Your task to perform on an android device: Check the news Image 0: 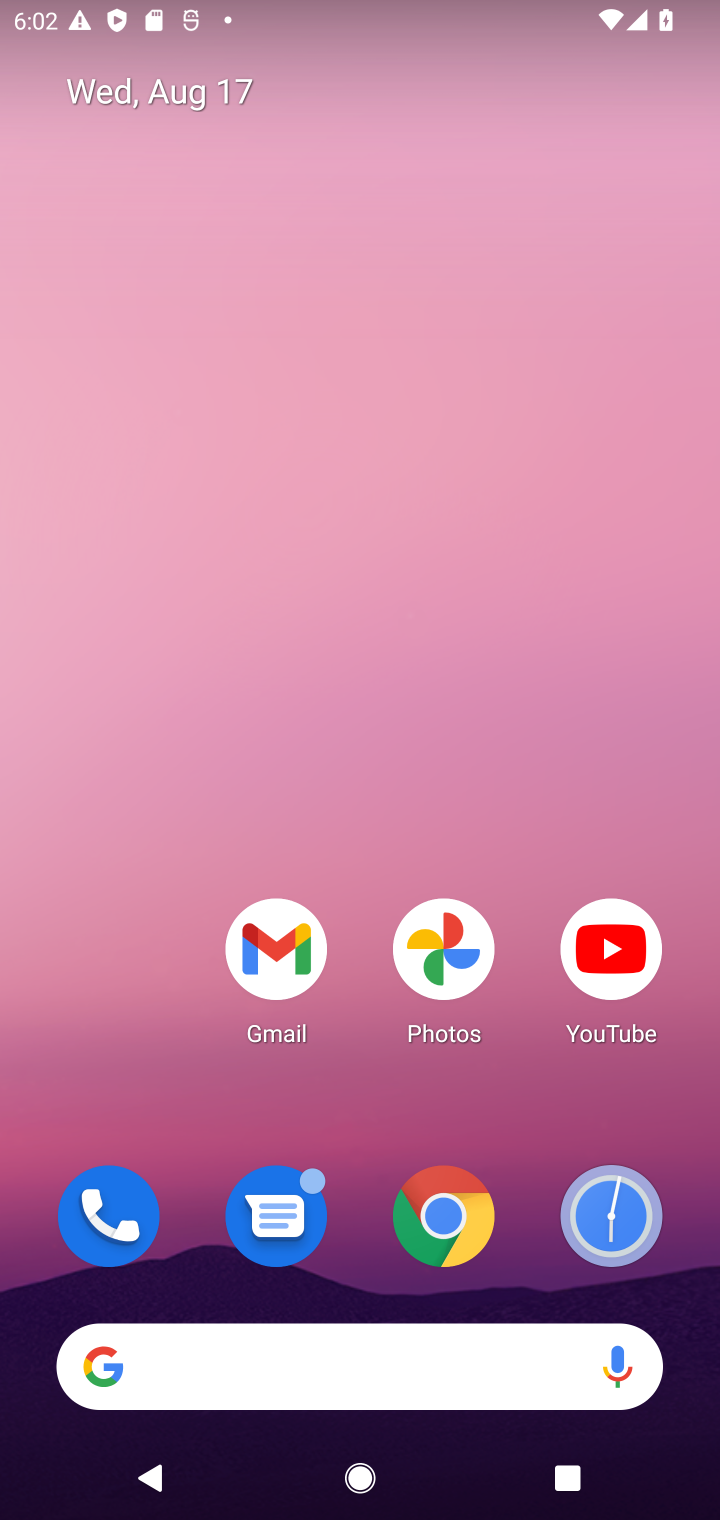
Step 0: drag from (497, 1029) to (358, 114)
Your task to perform on an android device: Check the news Image 1: 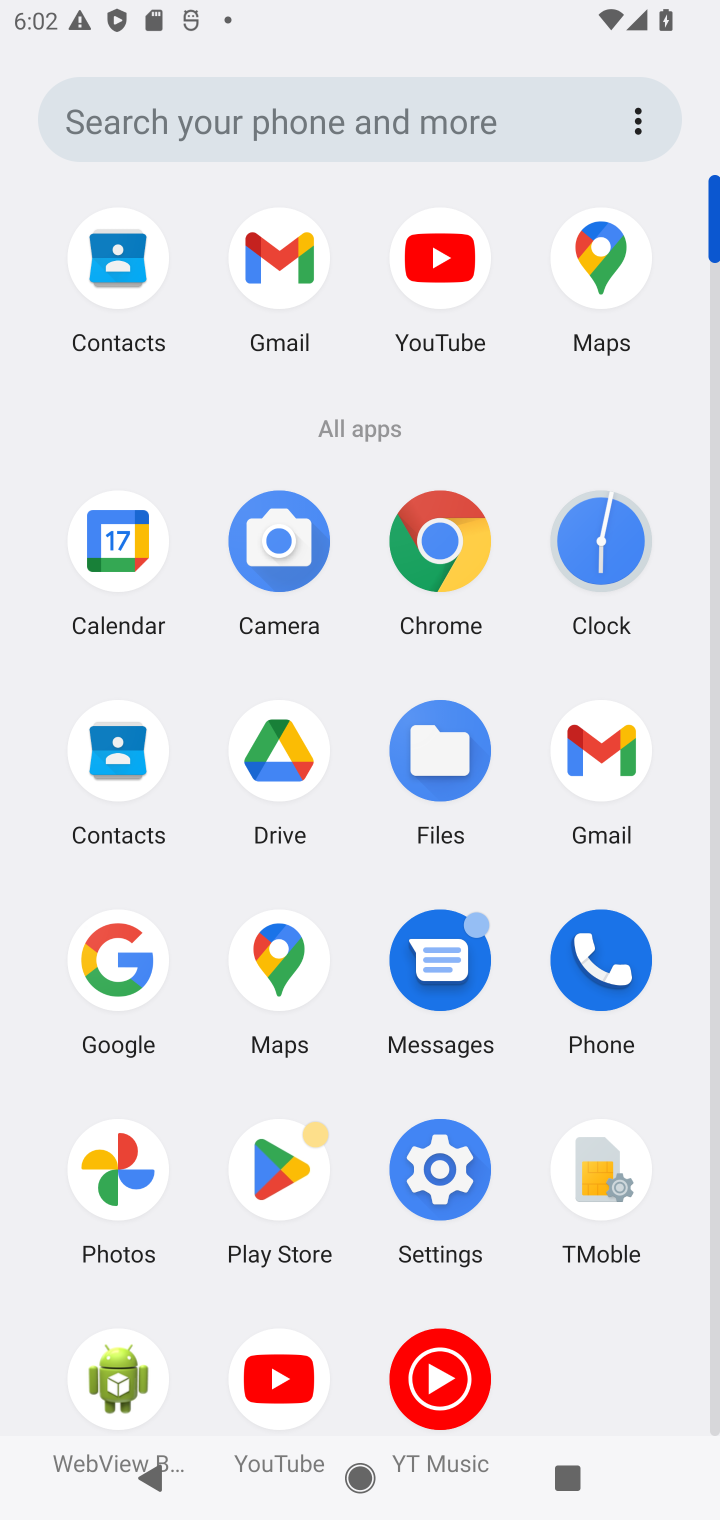
Step 1: click (416, 517)
Your task to perform on an android device: Check the news Image 2: 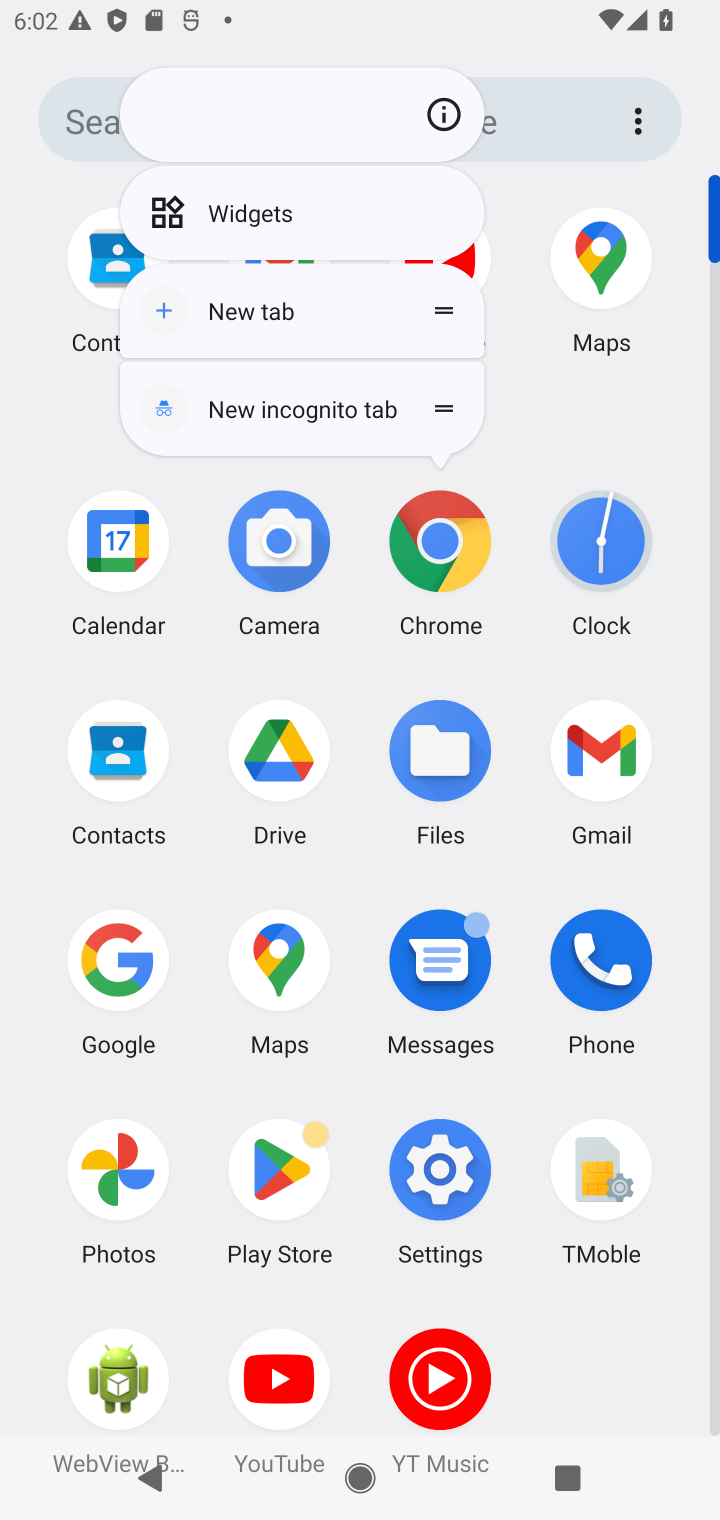
Step 2: click (444, 545)
Your task to perform on an android device: Check the news Image 3: 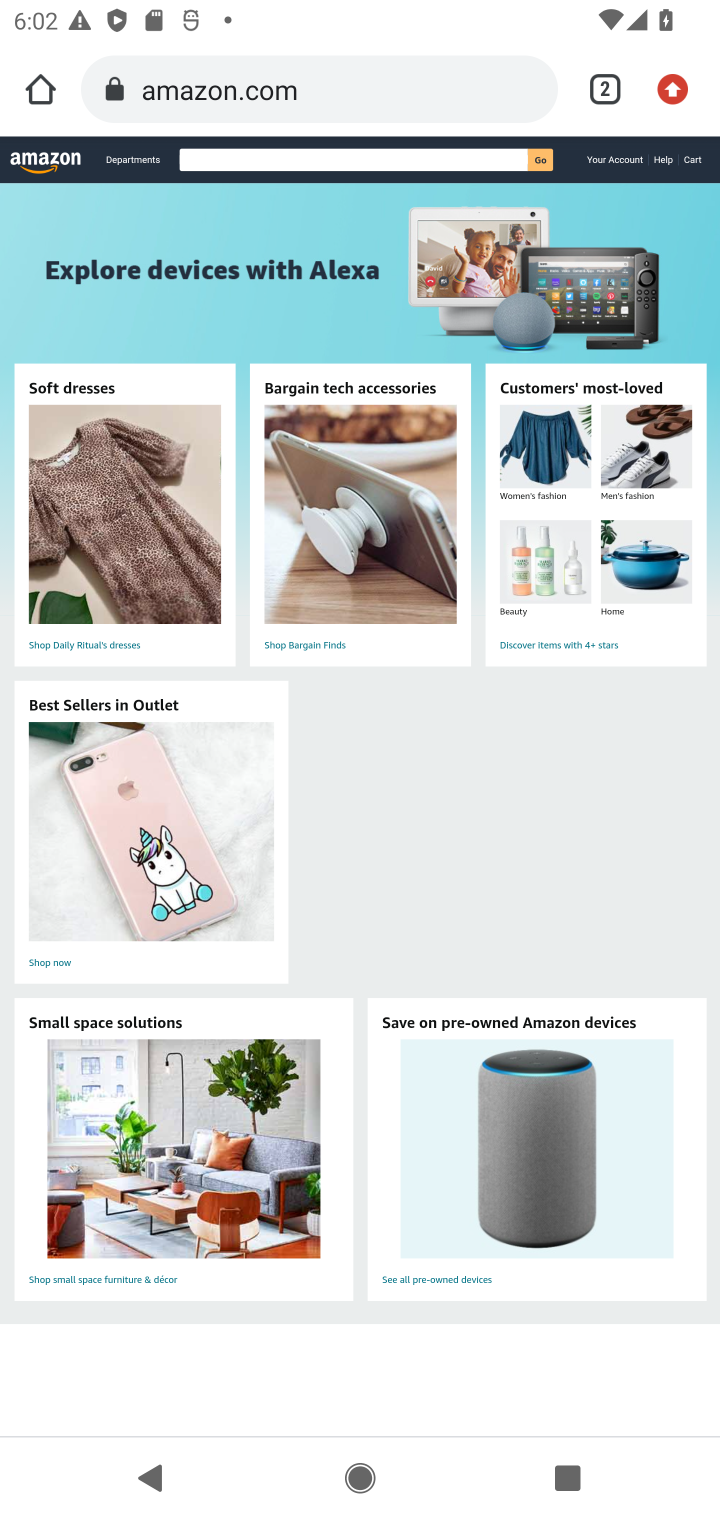
Step 3: click (278, 90)
Your task to perform on an android device: Check the news Image 4: 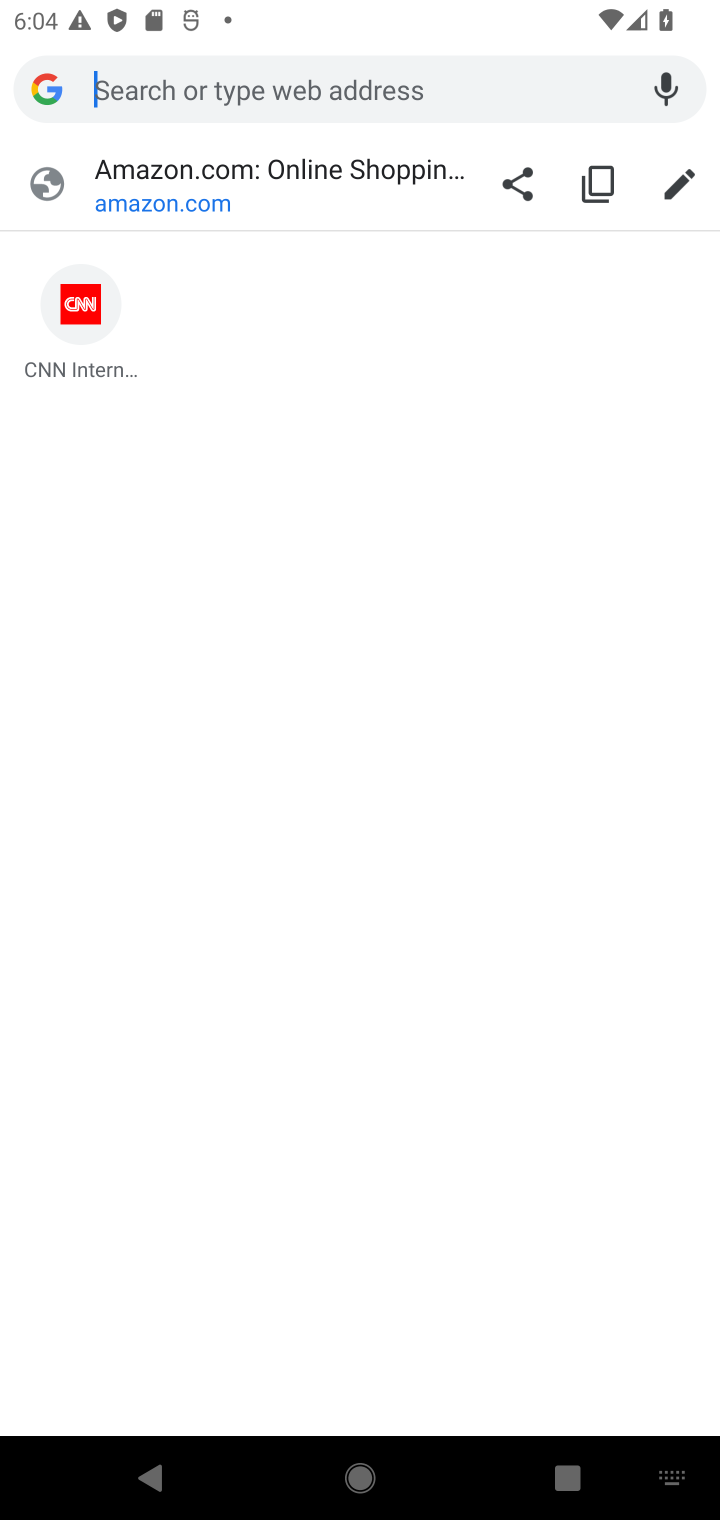
Step 4: type "news"
Your task to perform on an android device: Check the news Image 5: 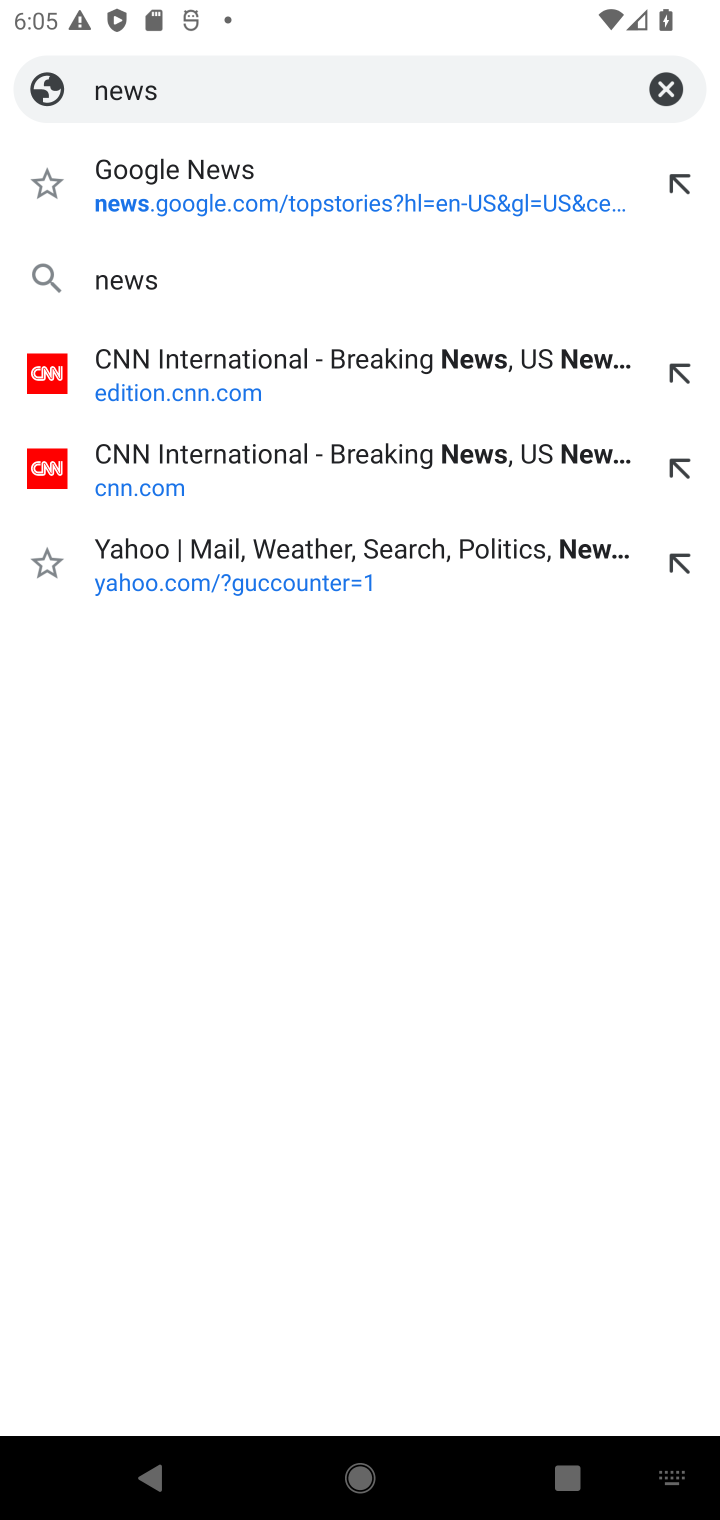
Step 5: click (157, 175)
Your task to perform on an android device: Check the news Image 6: 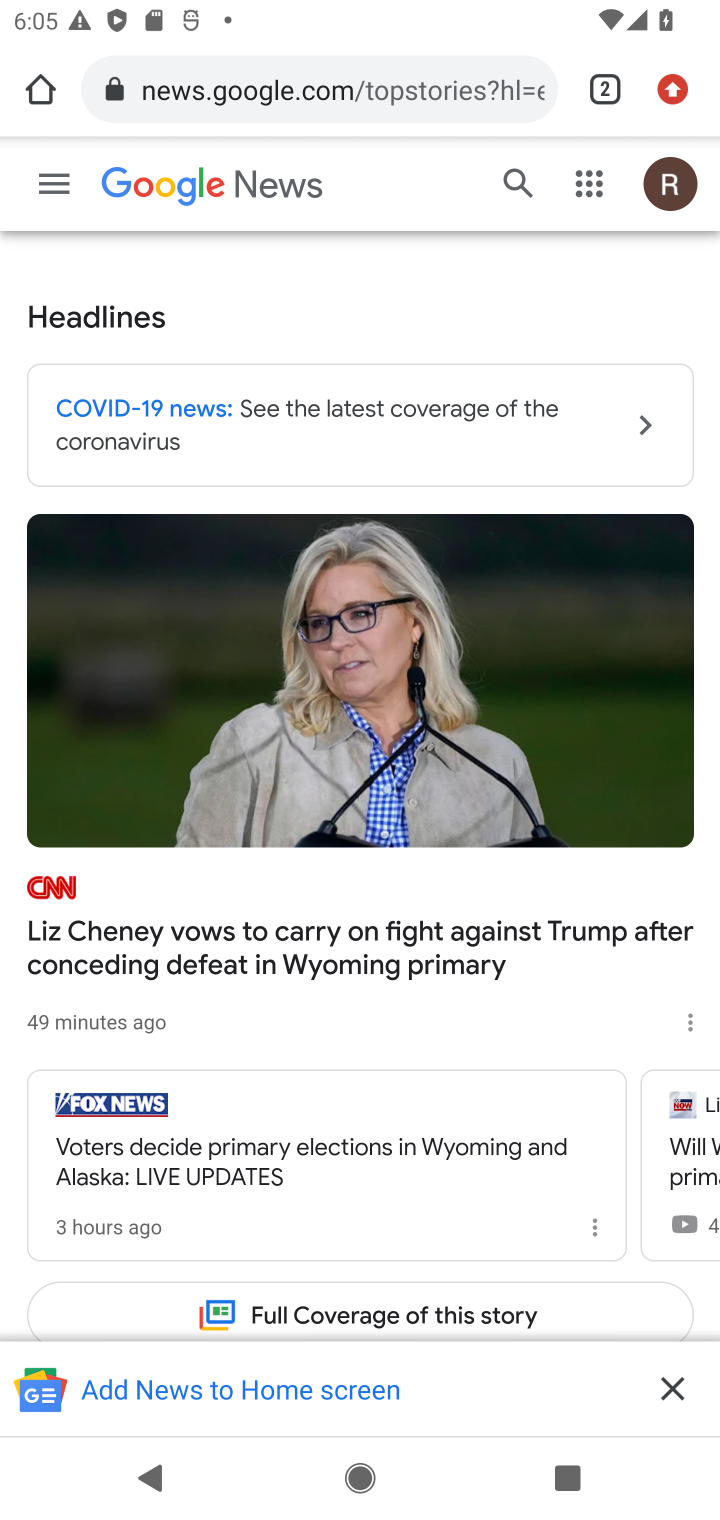
Step 6: task complete